Your task to perform on an android device: toggle pop-ups in chrome Image 0: 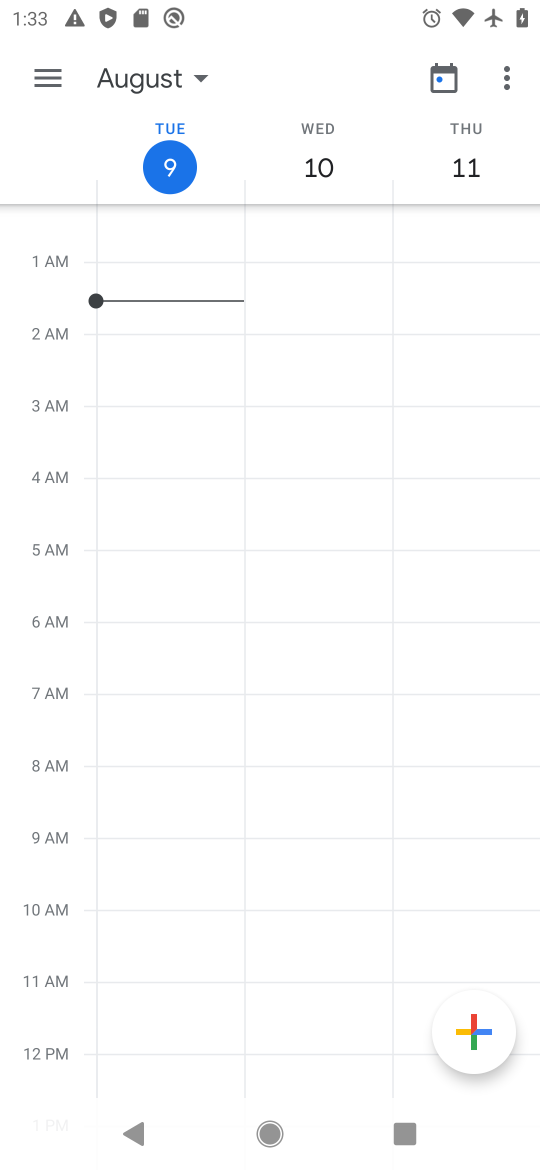
Step 0: press home button
Your task to perform on an android device: toggle pop-ups in chrome Image 1: 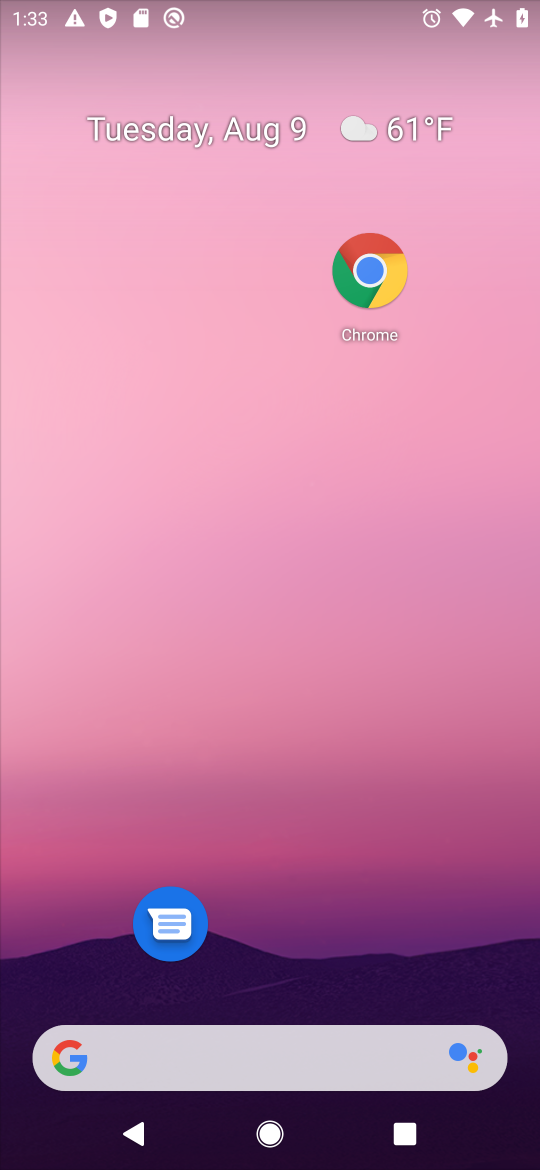
Step 1: click (354, 302)
Your task to perform on an android device: toggle pop-ups in chrome Image 2: 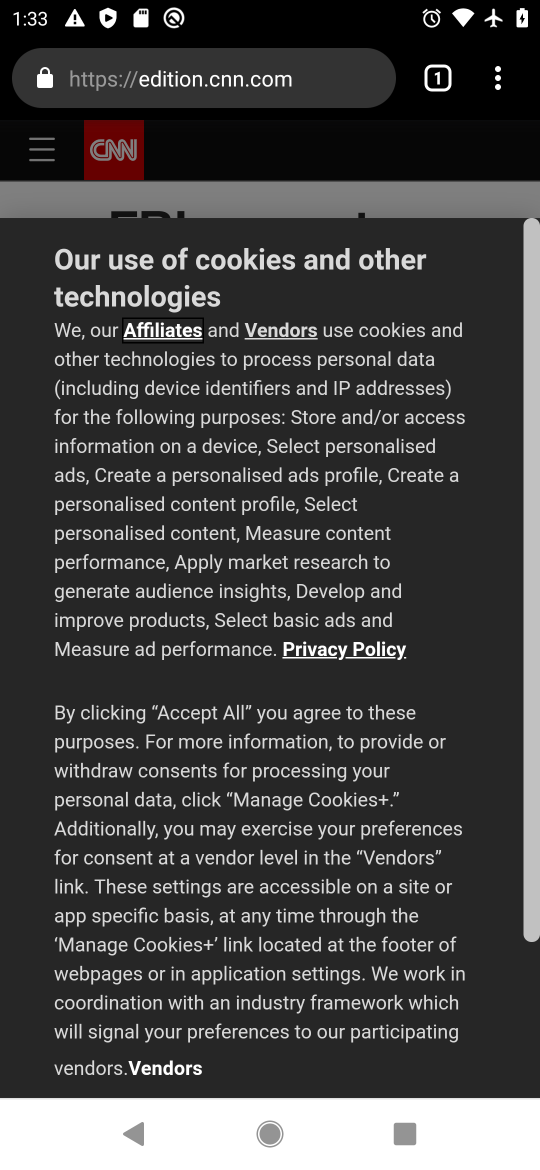
Step 2: click (488, 73)
Your task to perform on an android device: toggle pop-ups in chrome Image 3: 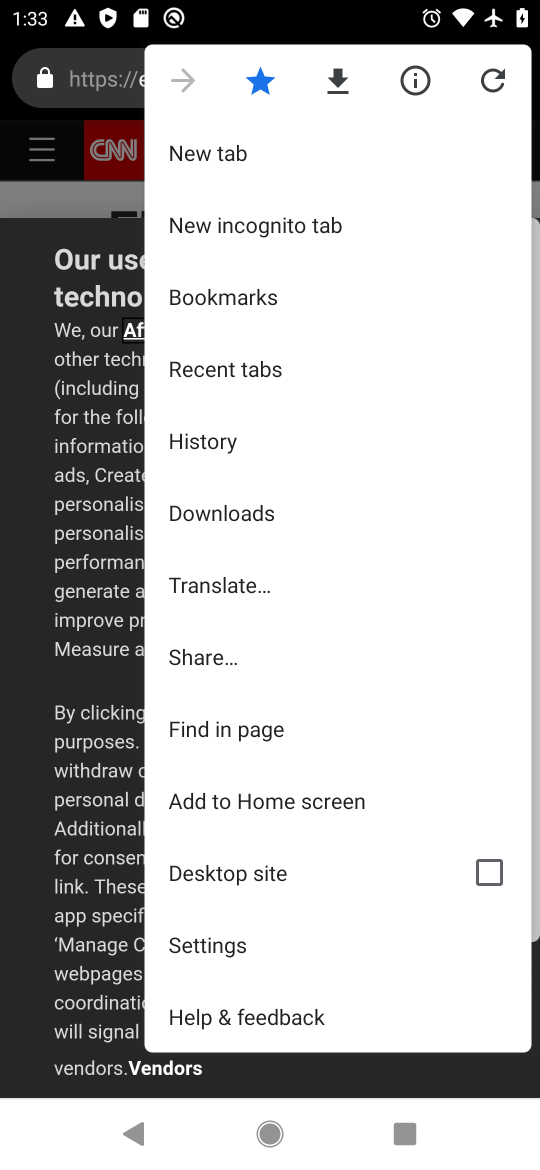
Step 3: click (325, 932)
Your task to perform on an android device: toggle pop-ups in chrome Image 4: 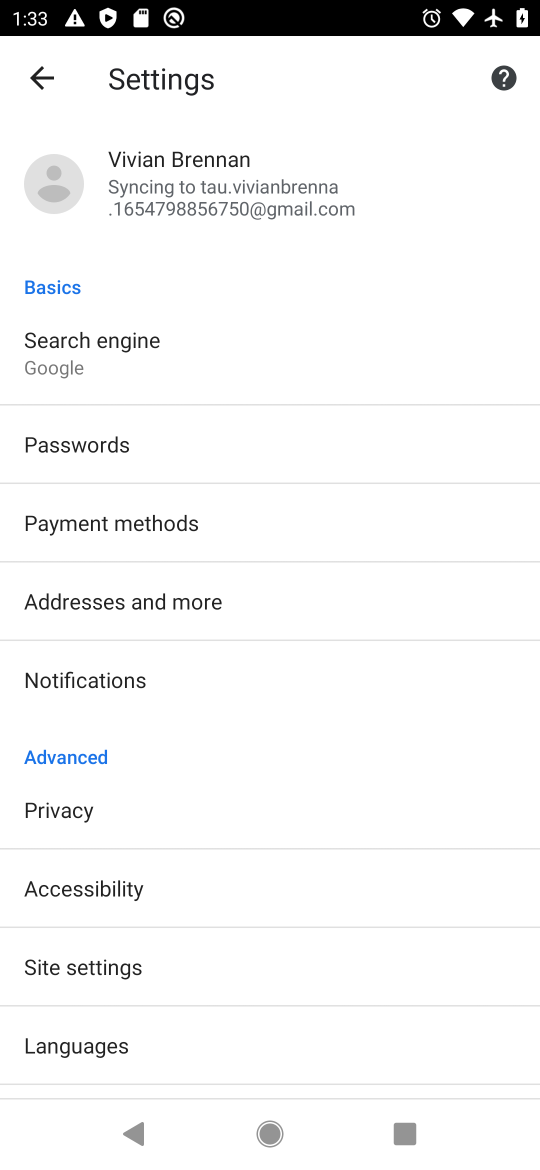
Step 4: click (229, 956)
Your task to perform on an android device: toggle pop-ups in chrome Image 5: 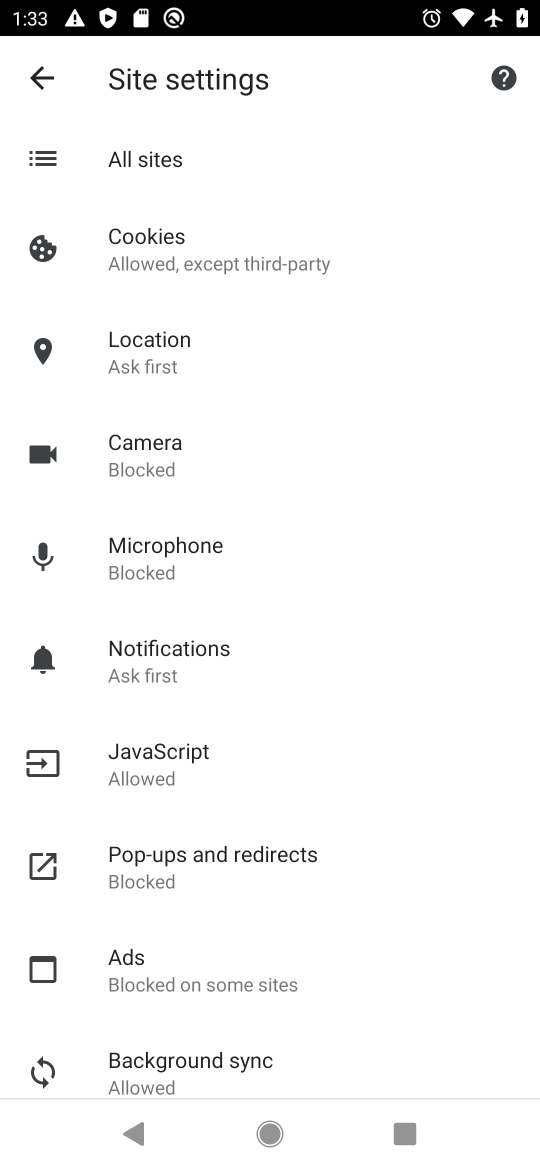
Step 5: click (184, 861)
Your task to perform on an android device: toggle pop-ups in chrome Image 6: 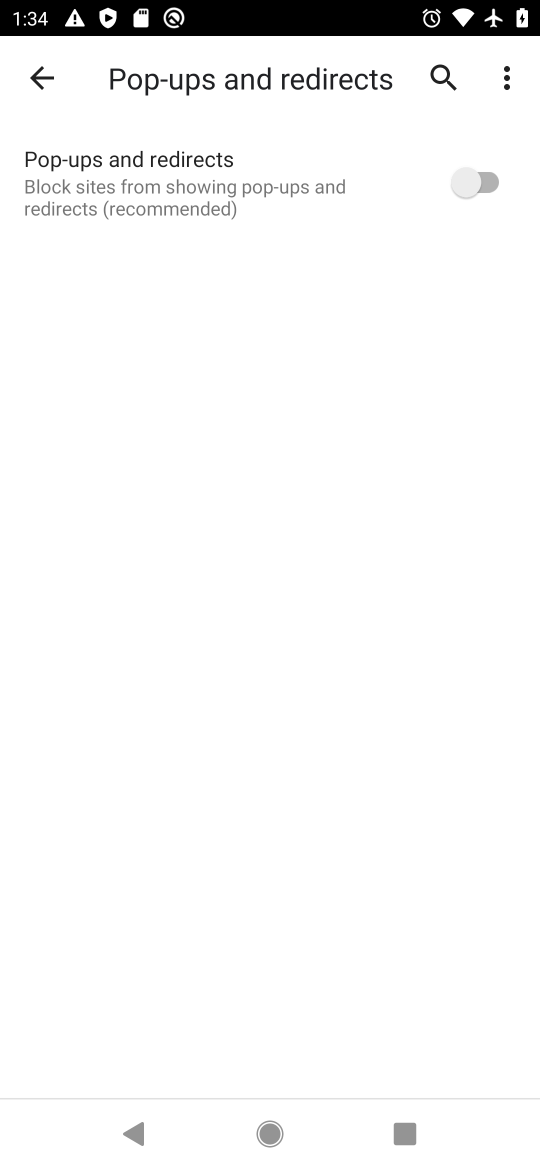
Step 6: click (496, 166)
Your task to perform on an android device: toggle pop-ups in chrome Image 7: 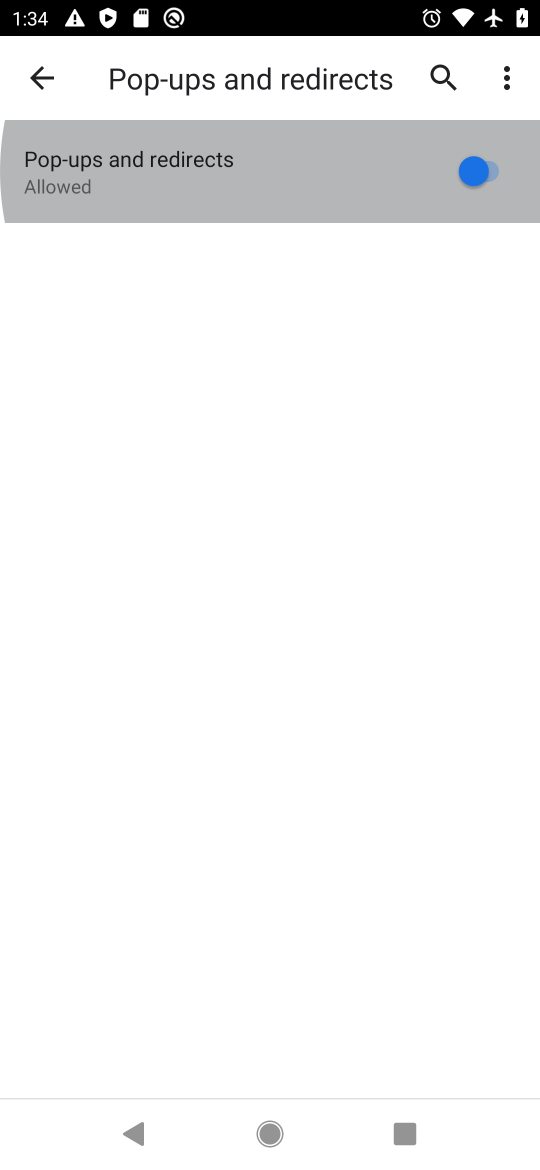
Step 7: task complete